Your task to perform on an android device: manage bookmarks in the chrome app Image 0: 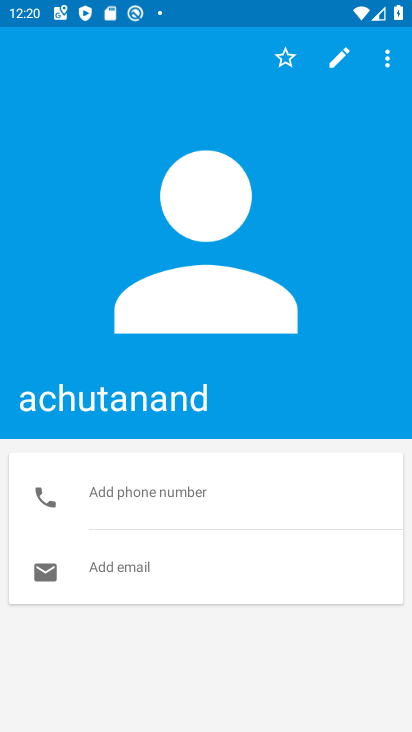
Step 0: press home button
Your task to perform on an android device: manage bookmarks in the chrome app Image 1: 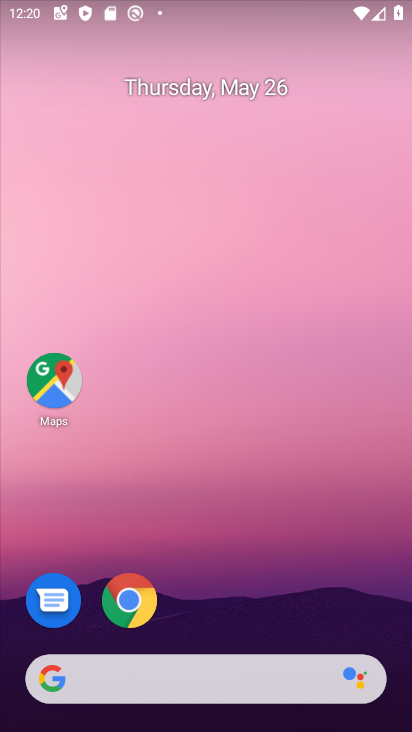
Step 1: drag from (259, 530) to (221, 206)
Your task to perform on an android device: manage bookmarks in the chrome app Image 2: 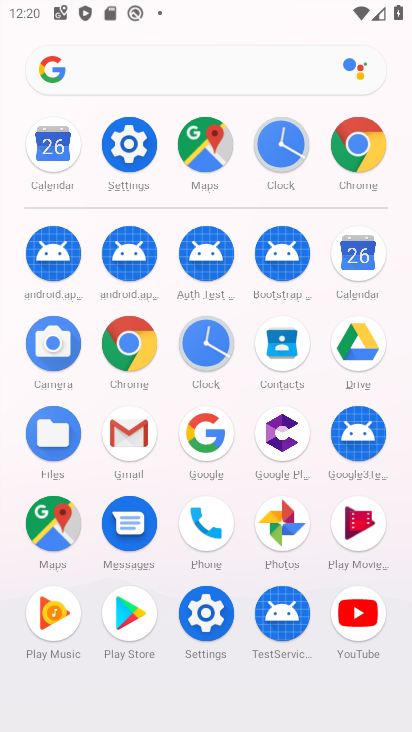
Step 2: click (125, 341)
Your task to perform on an android device: manage bookmarks in the chrome app Image 3: 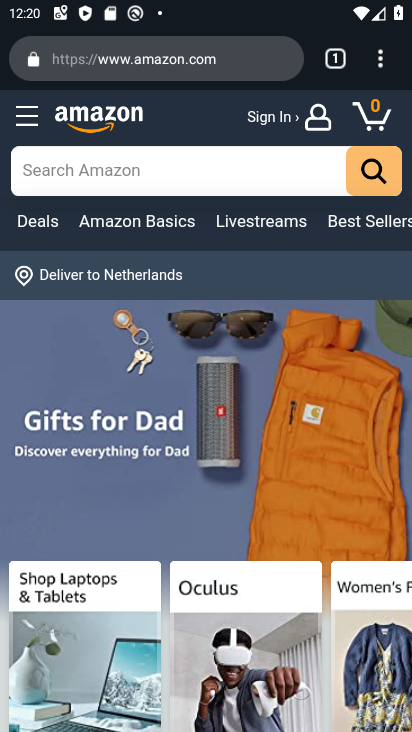
Step 3: click (370, 58)
Your task to perform on an android device: manage bookmarks in the chrome app Image 4: 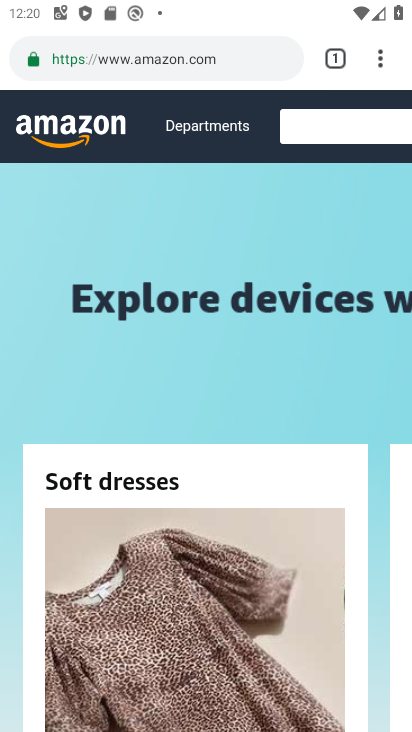
Step 4: task complete